Your task to perform on an android device: toggle sleep mode Image 0: 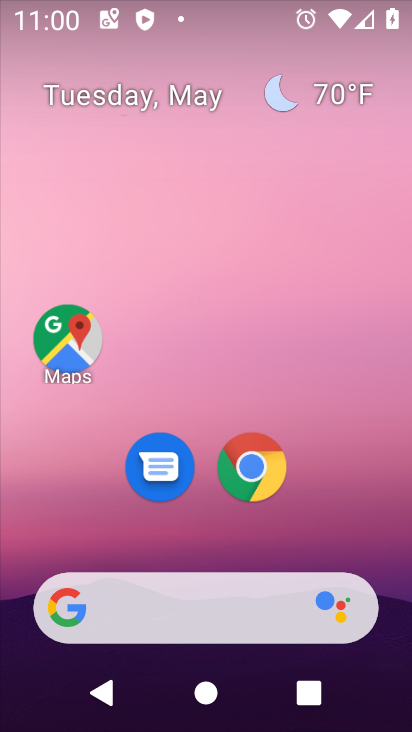
Step 0: drag from (102, 547) to (188, 83)
Your task to perform on an android device: toggle sleep mode Image 1: 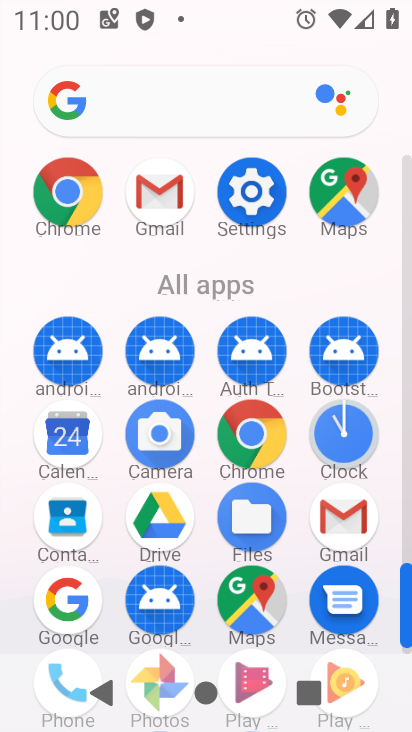
Step 1: drag from (177, 624) to (299, 266)
Your task to perform on an android device: toggle sleep mode Image 2: 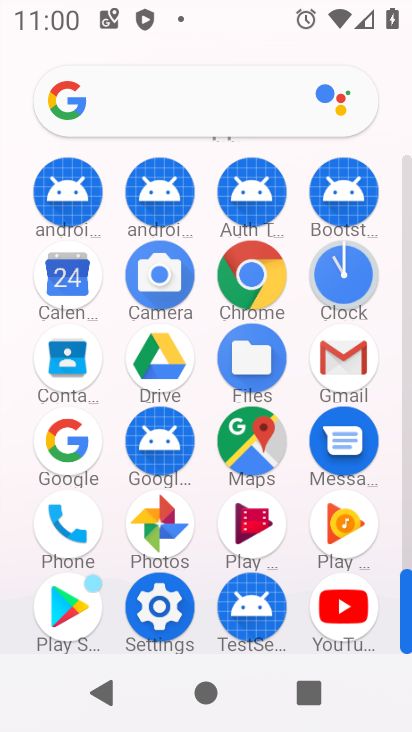
Step 2: click (145, 619)
Your task to perform on an android device: toggle sleep mode Image 3: 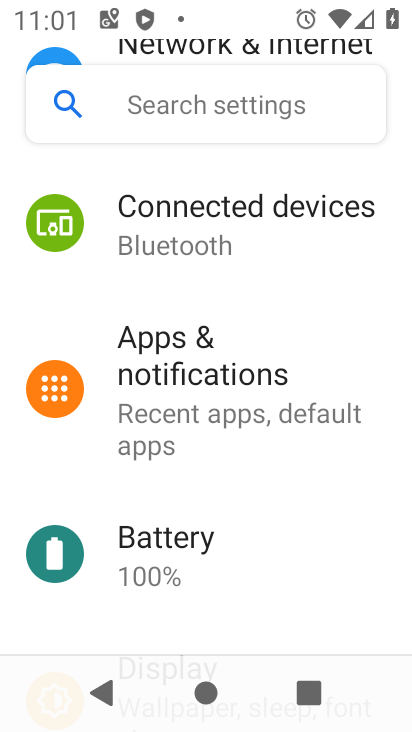
Step 3: drag from (287, 515) to (321, 148)
Your task to perform on an android device: toggle sleep mode Image 4: 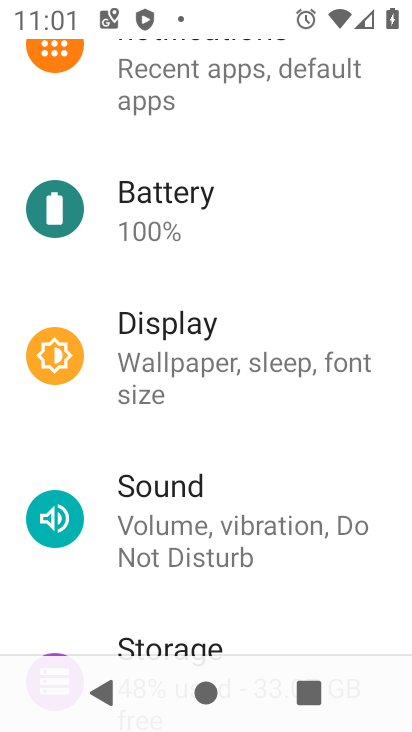
Step 4: click (175, 348)
Your task to perform on an android device: toggle sleep mode Image 5: 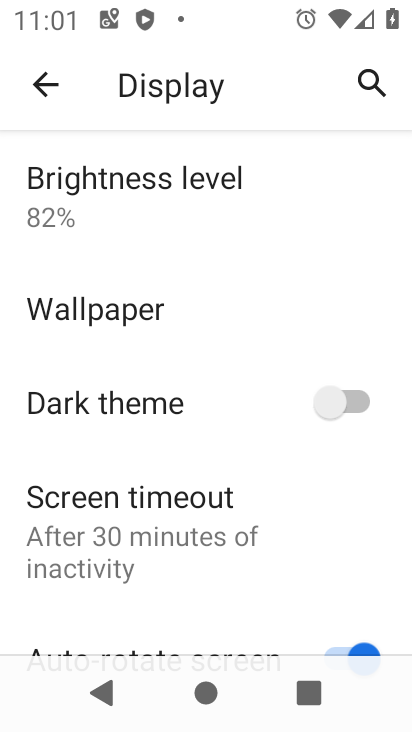
Step 5: task complete